Your task to perform on an android device: Add "bose soundlink mini" to the cart on target, then select checkout. Image 0: 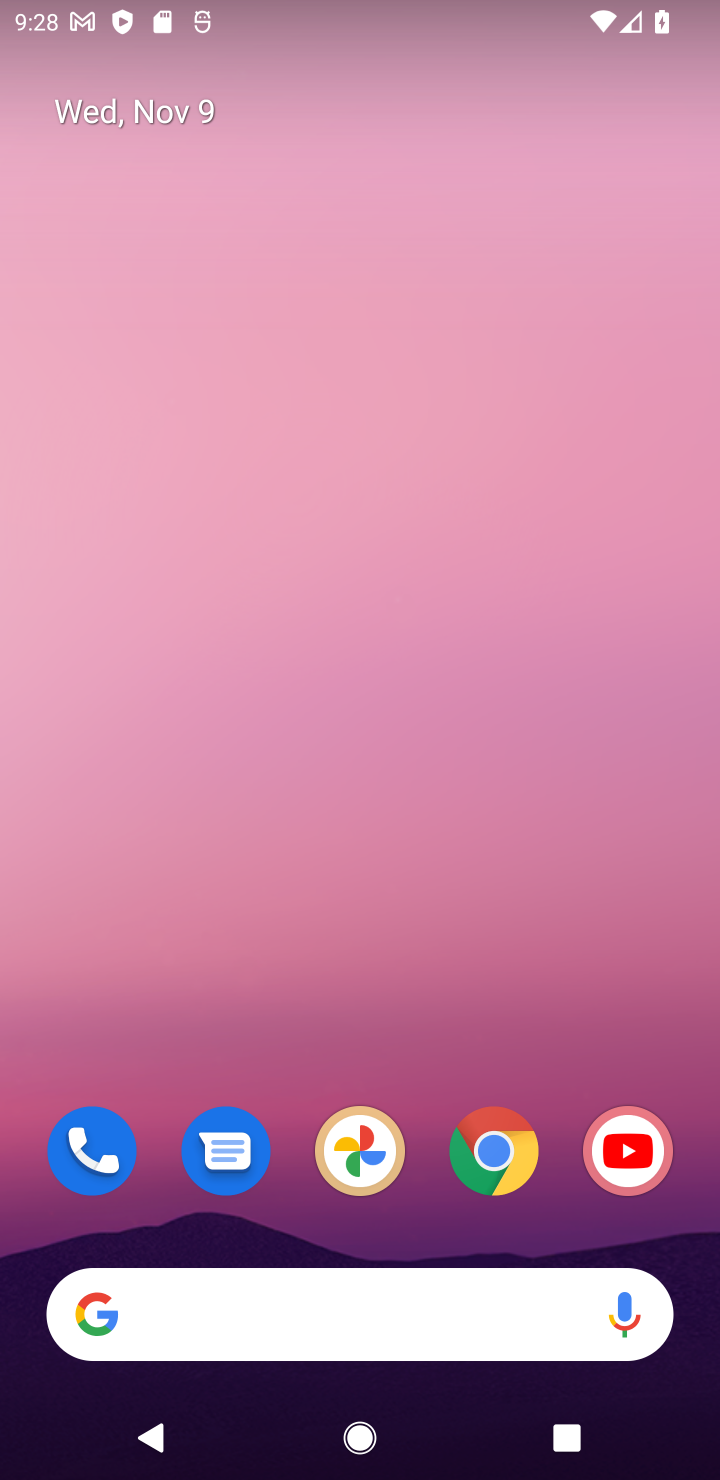
Step 0: click (499, 1167)
Your task to perform on an android device: Add "bose soundlink mini" to the cart on target, then select checkout. Image 1: 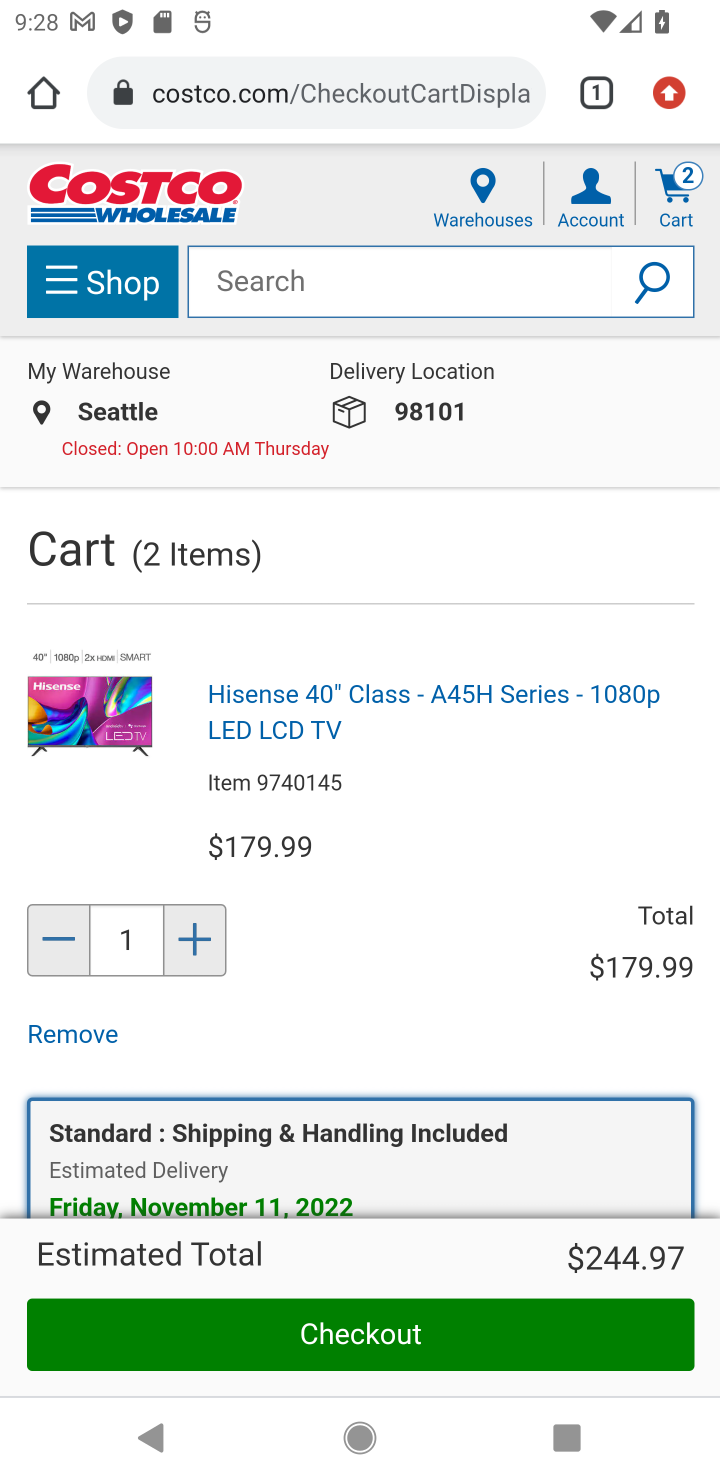
Step 1: click (278, 104)
Your task to perform on an android device: Add "bose soundlink mini" to the cart on target, then select checkout. Image 2: 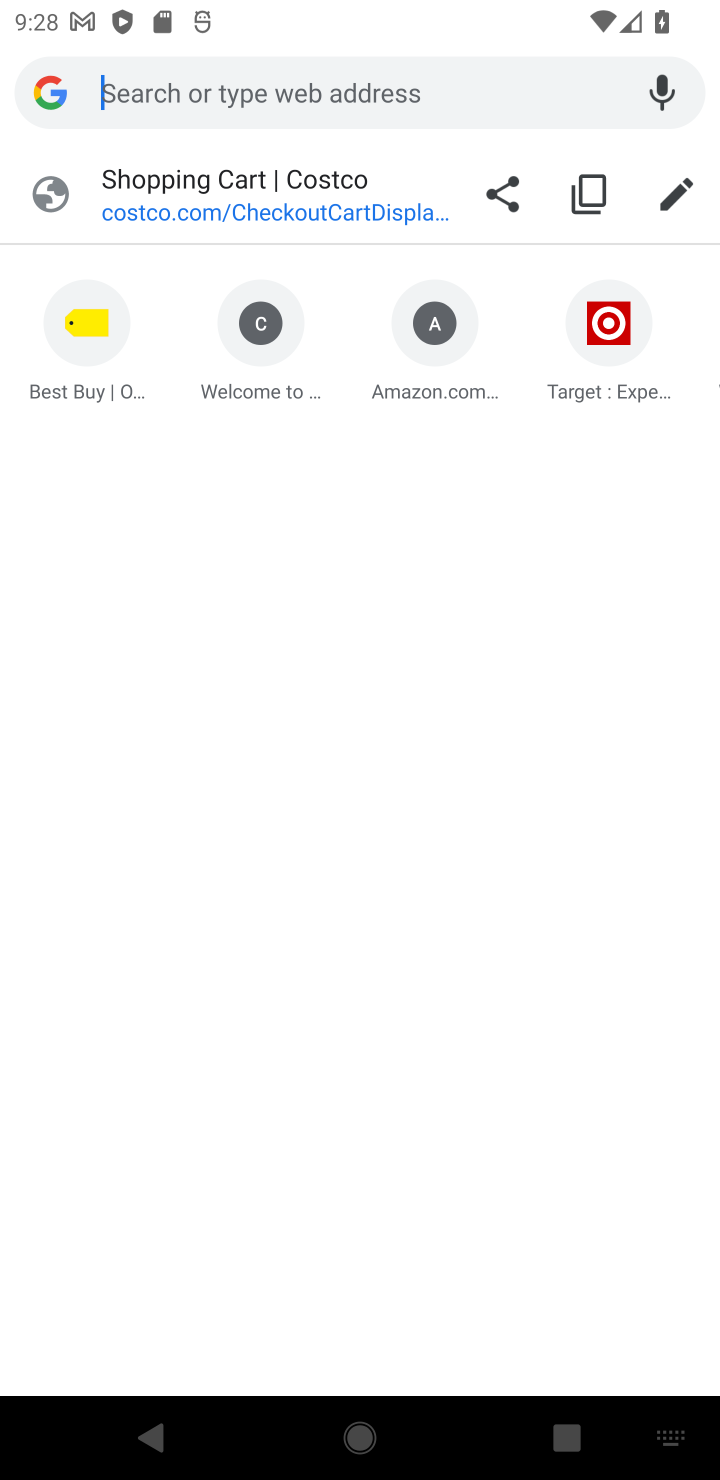
Step 2: click (590, 369)
Your task to perform on an android device: Add "bose soundlink mini" to the cart on target, then select checkout. Image 3: 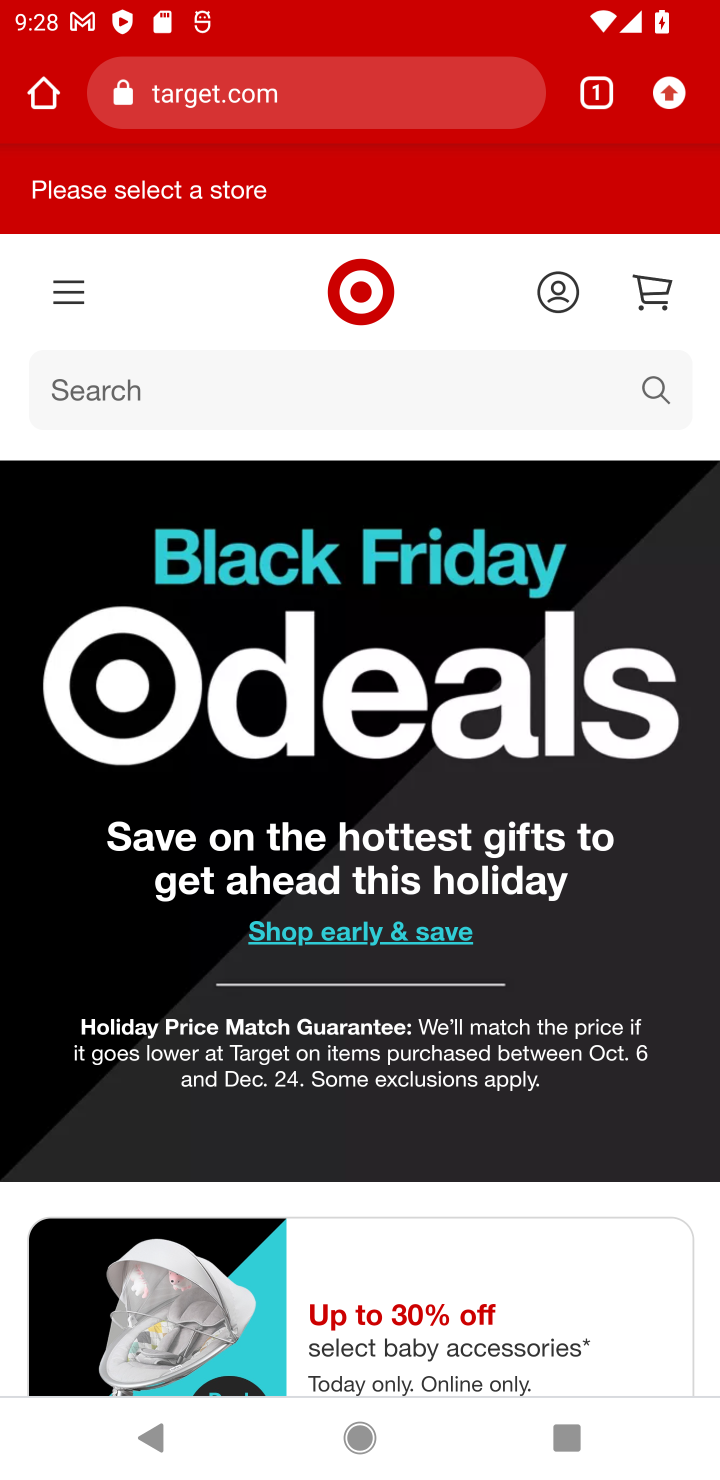
Step 3: click (184, 383)
Your task to perform on an android device: Add "bose soundlink mini" to the cart on target, then select checkout. Image 4: 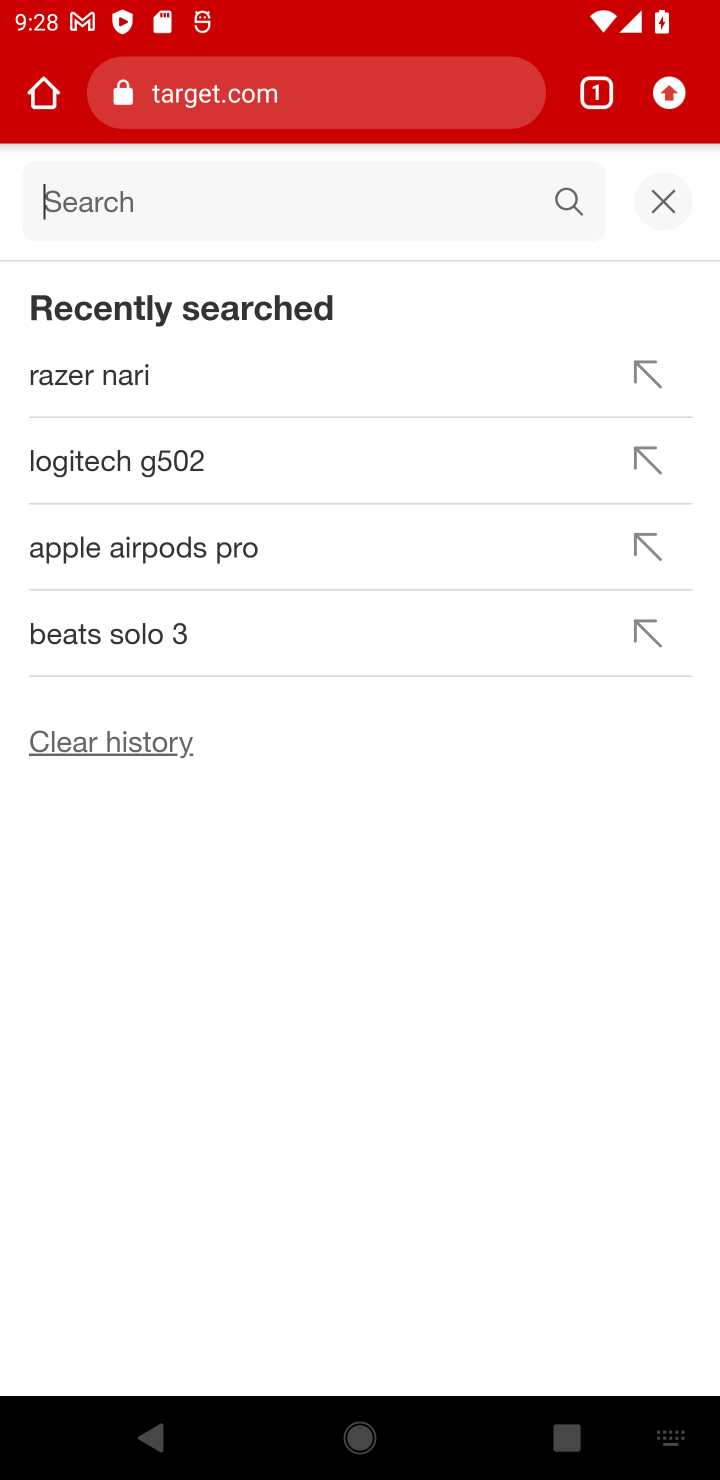
Step 4: type "bose soundlink mini"
Your task to perform on an android device: Add "bose soundlink mini" to the cart on target, then select checkout. Image 5: 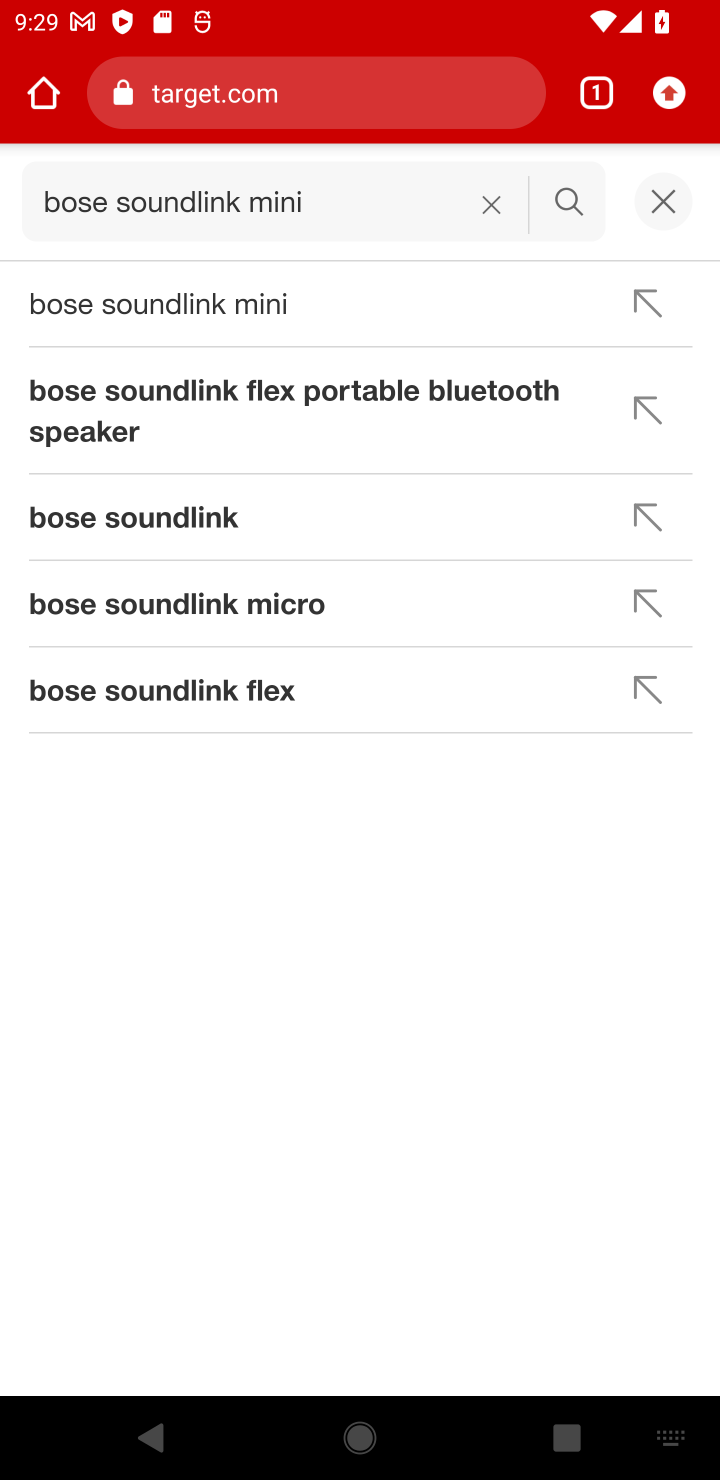
Step 5: press enter
Your task to perform on an android device: Add "bose soundlink mini" to the cart on target, then select checkout. Image 6: 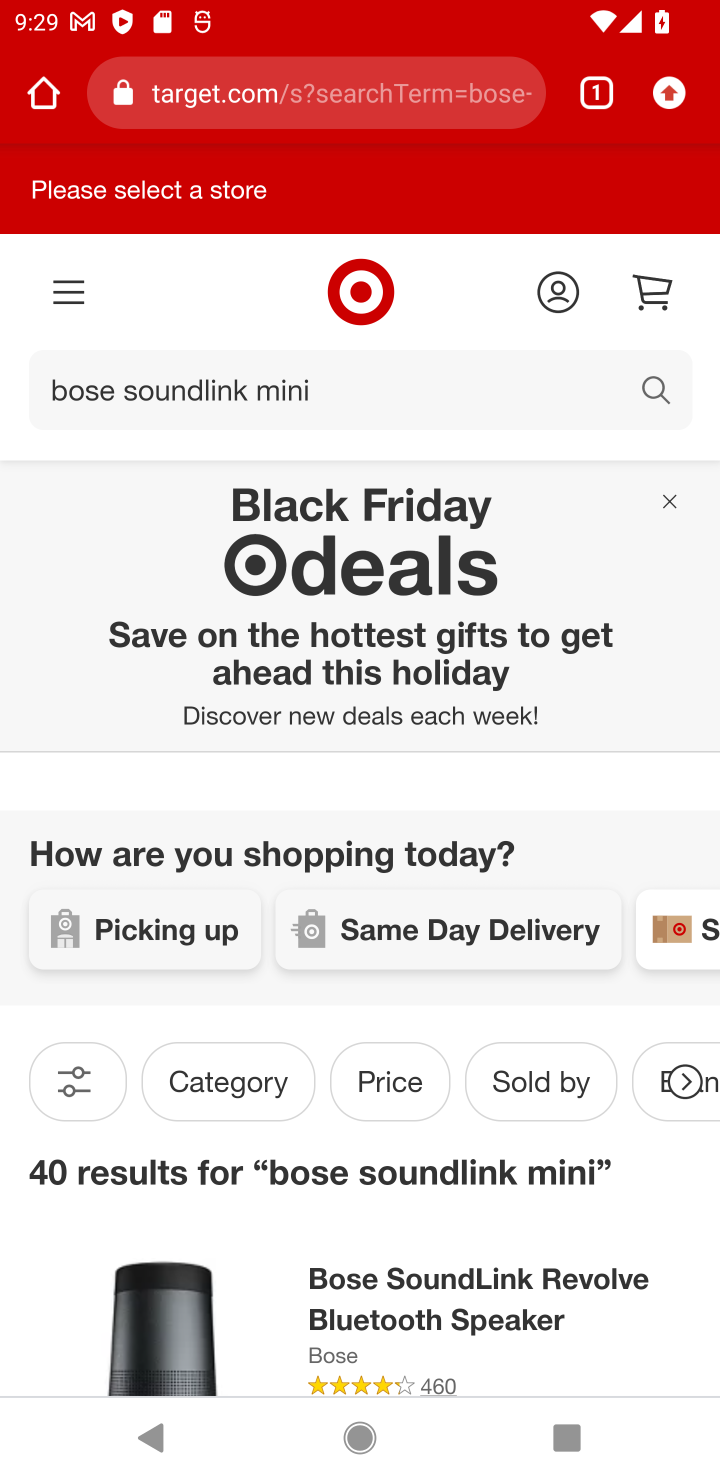
Step 6: drag from (457, 1297) to (467, 613)
Your task to perform on an android device: Add "bose soundlink mini" to the cart on target, then select checkout. Image 7: 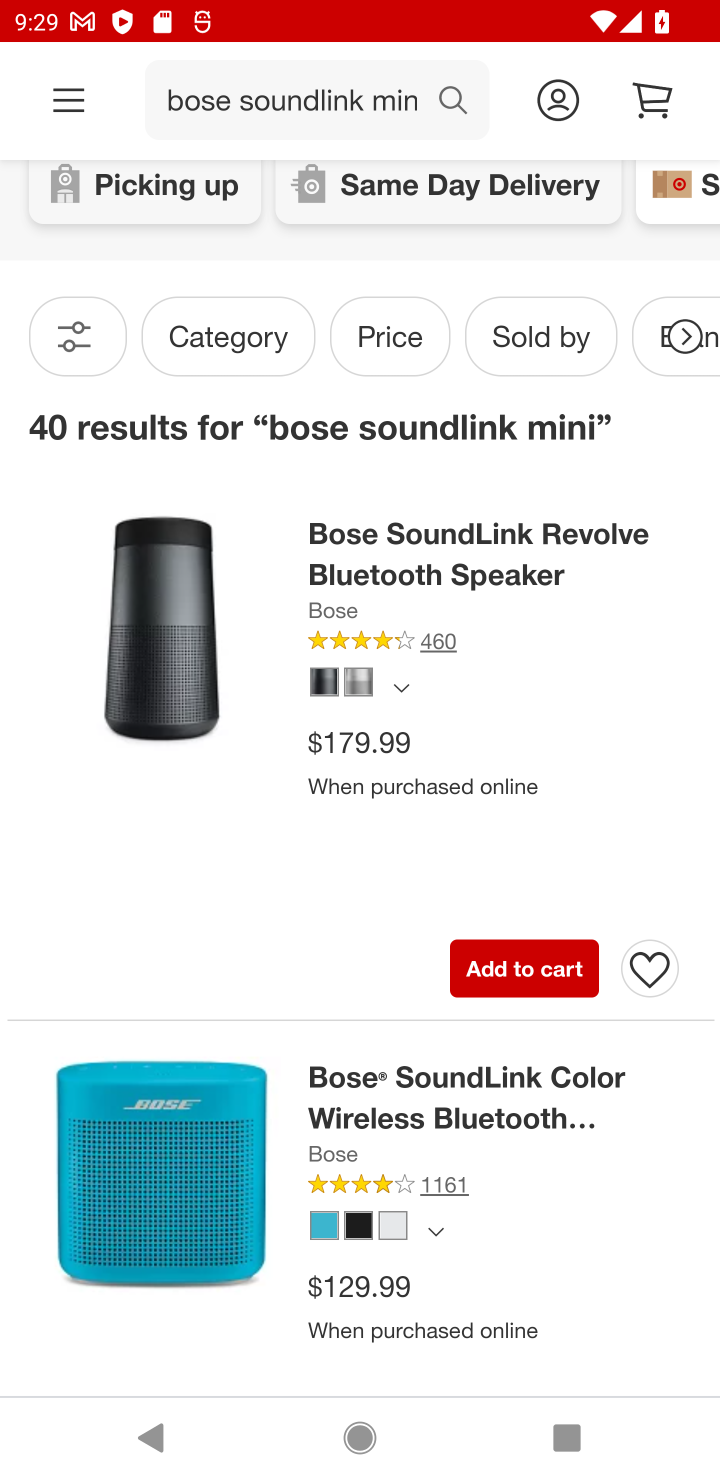
Step 7: click (524, 968)
Your task to perform on an android device: Add "bose soundlink mini" to the cart on target, then select checkout. Image 8: 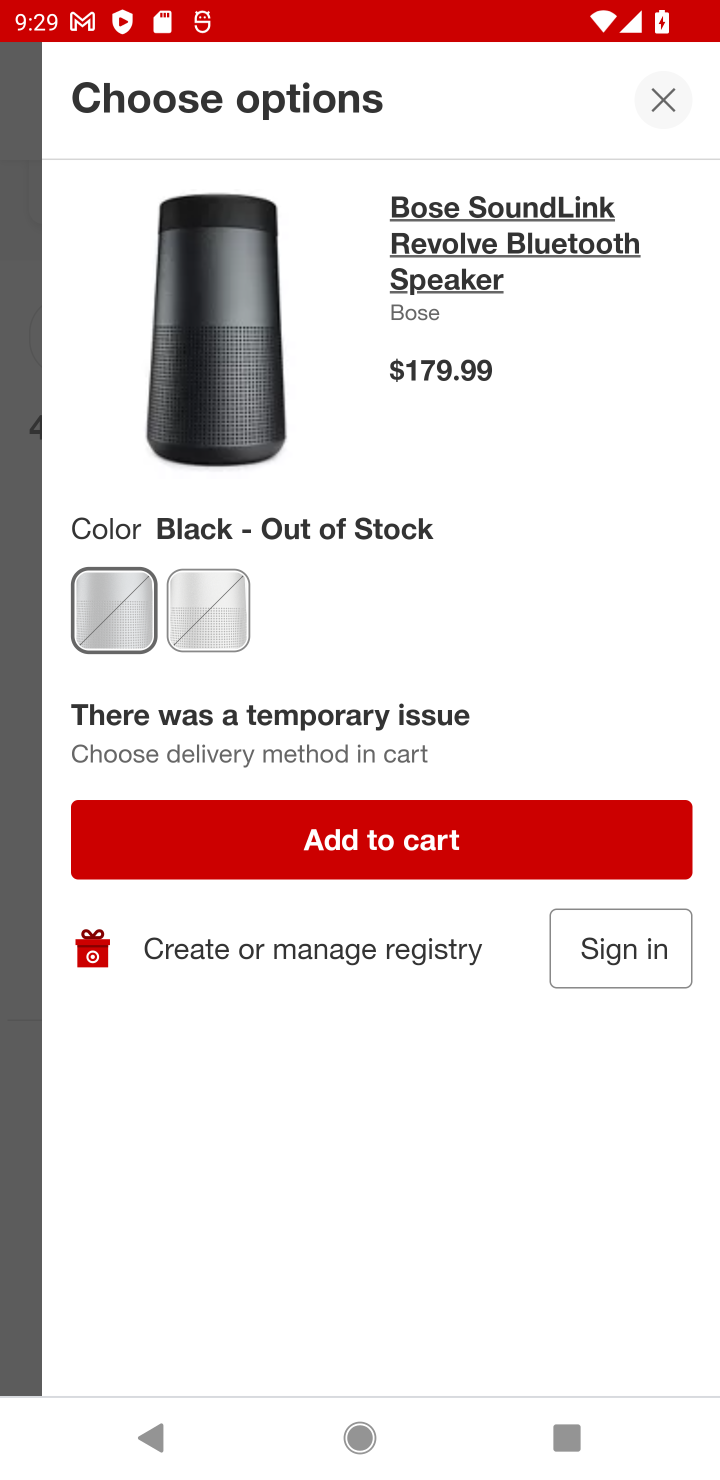
Step 8: click (409, 862)
Your task to perform on an android device: Add "bose soundlink mini" to the cart on target, then select checkout. Image 9: 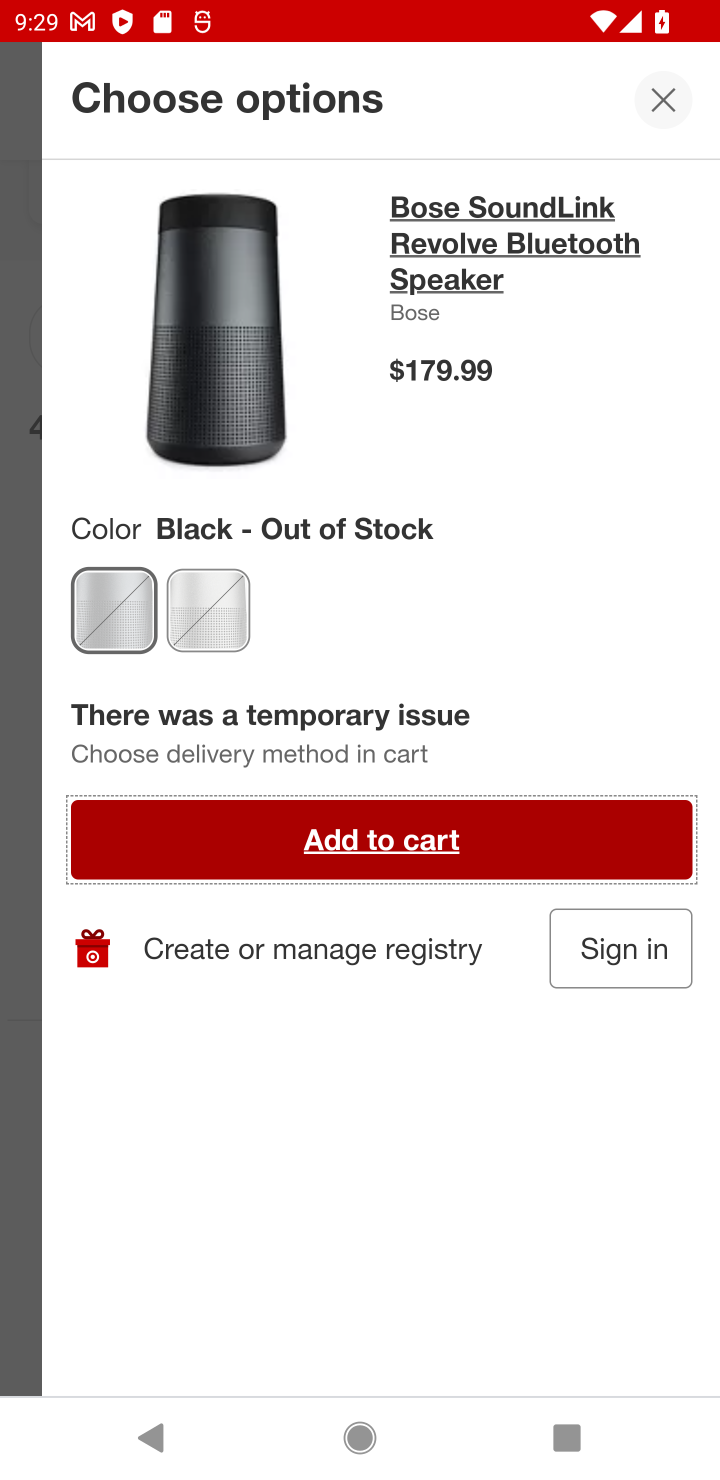
Step 9: click (369, 853)
Your task to perform on an android device: Add "bose soundlink mini" to the cart on target, then select checkout. Image 10: 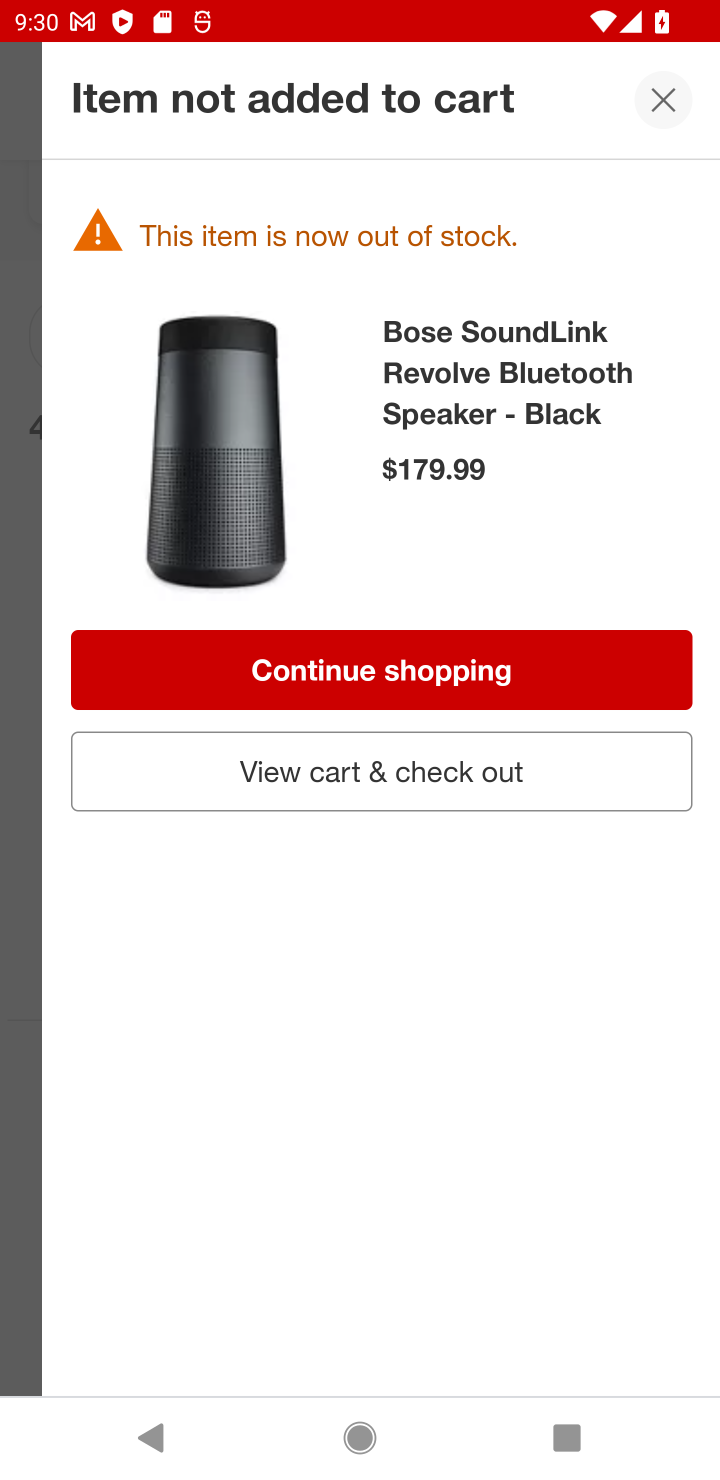
Step 10: click (371, 772)
Your task to perform on an android device: Add "bose soundlink mini" to the cart on target, then select checkout. Image 11: 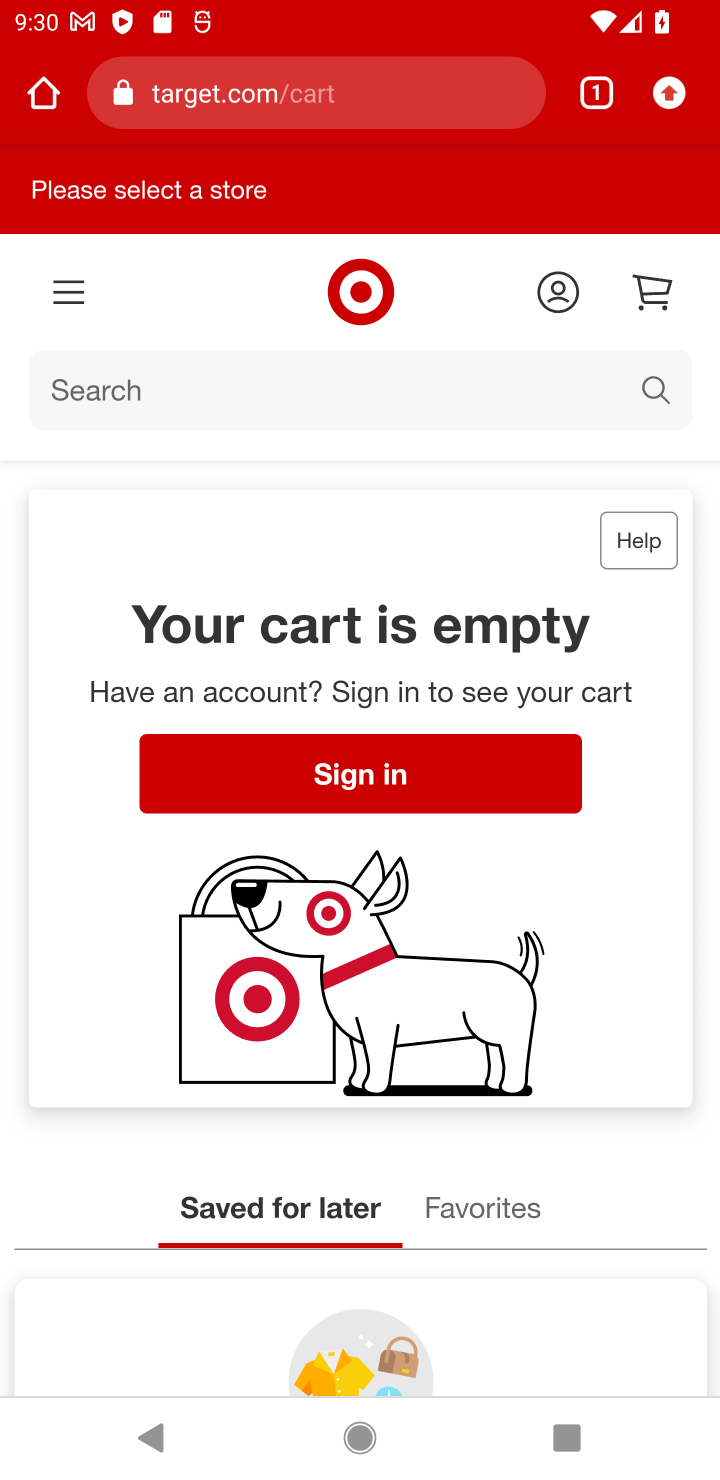
Step 11: task complete